Your task to perform on an android device: Open the web browser Image 0: 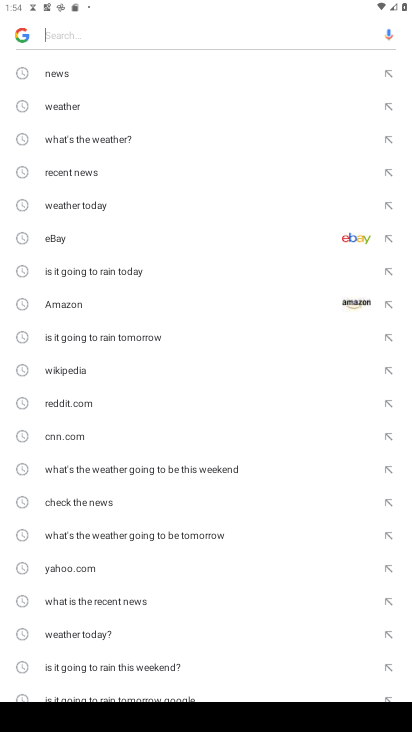
Step 0: press home button
Your task to perform on an android device: Open the web browser Image 1: 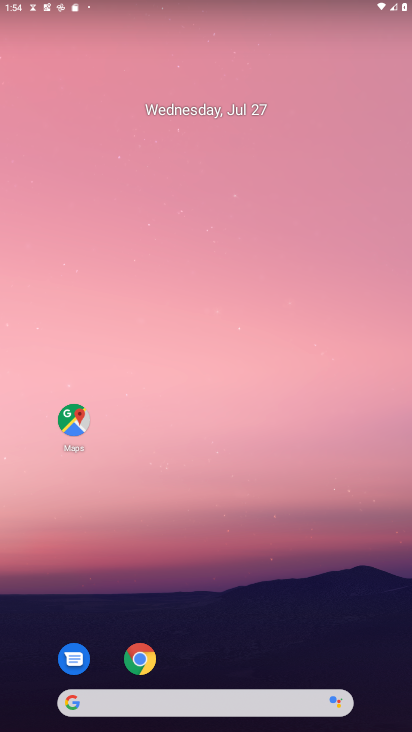
Step 1: drag from (22, 659) to (281, 50)
Your task to perform on an android device: Open the web browser Image 2: 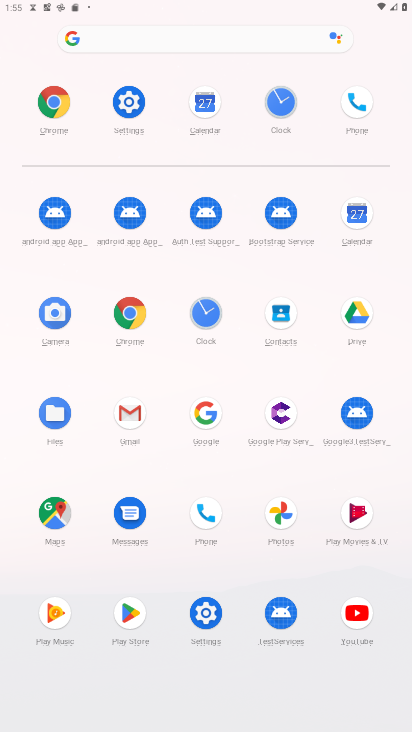
Step 2: click (132, 316)
Your task to perform on an android device: Open the web browser Image 3: 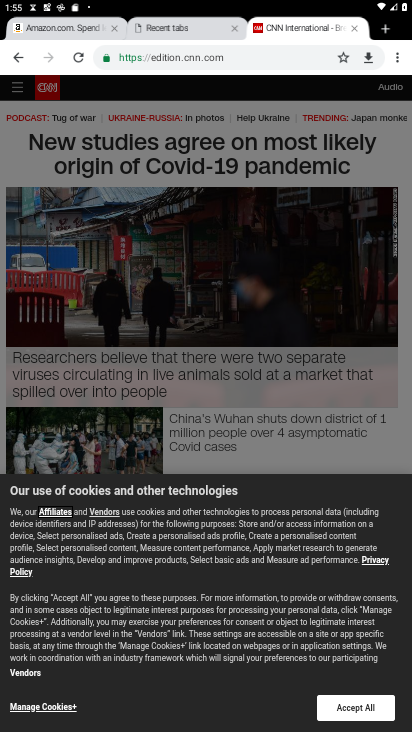
Step 3: task complete